Your task to perform on an android device: Search for macbook pro on bestbuy.com, select the first entry, add it to the cart, then select checkout. Image 0: 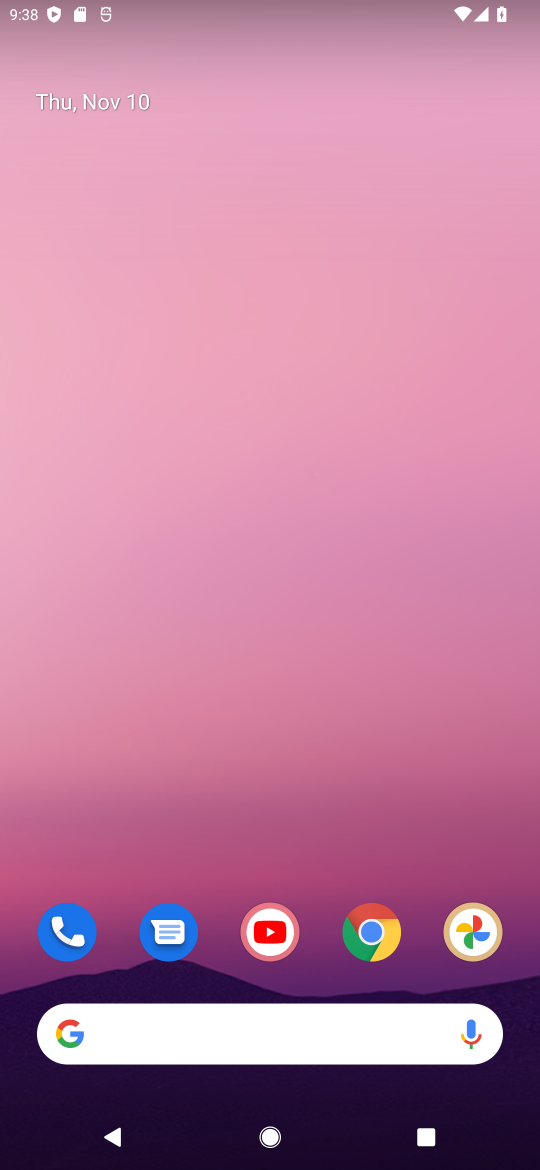
Step 0: click (382, 946)
Your task to perform on an android device: Search for macbook pro on bestbuy.com, select the first entry, add it to the cart, then select checkout. Image 1: 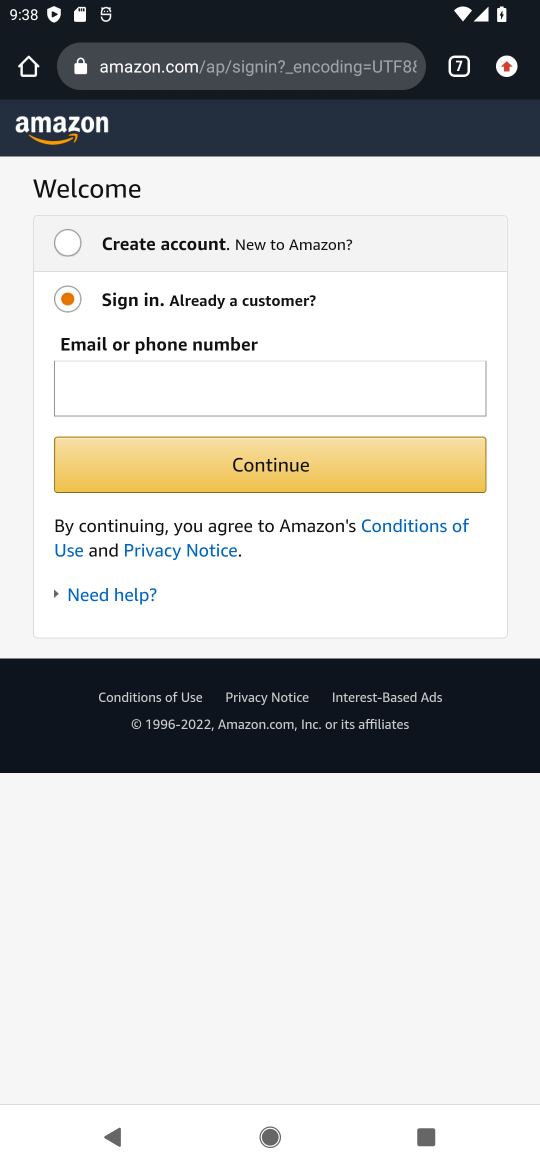
Step 1: click (459, 66)
Your task to perform on an android device: Search for macbook pro on bestbuy.com, select the first entry, add it to the cart, then select checkout. Image 2: 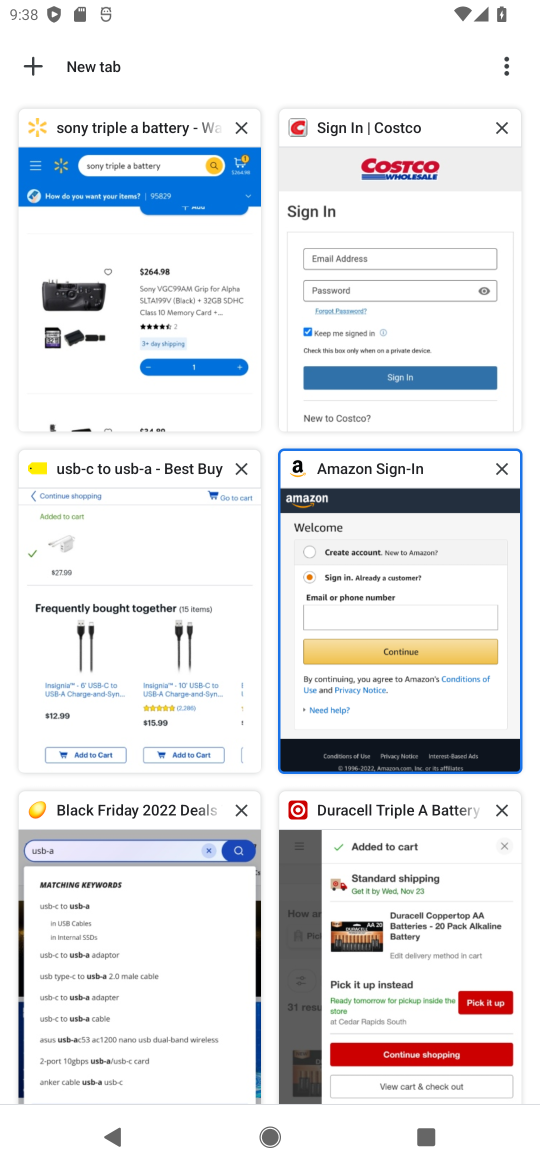
Step 2: click (181, 570)
Your task to perform on an android device: Search for macbook pro on bestbuy.com, select the first entry, add it to the cart, then select checkout. Image 3: 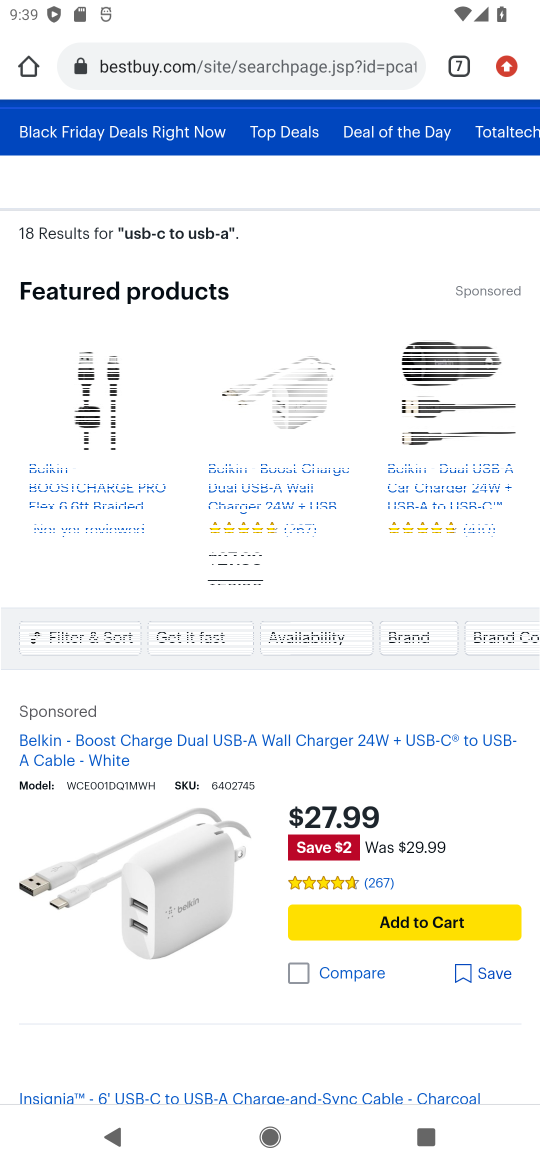
Step 3: drag from (357, 229) to (312, 753)
Your task to perform on an android device: Search for macbook pro on bestbuy.com, select the first entry, add it to the cart, then select checkout. Image 4: 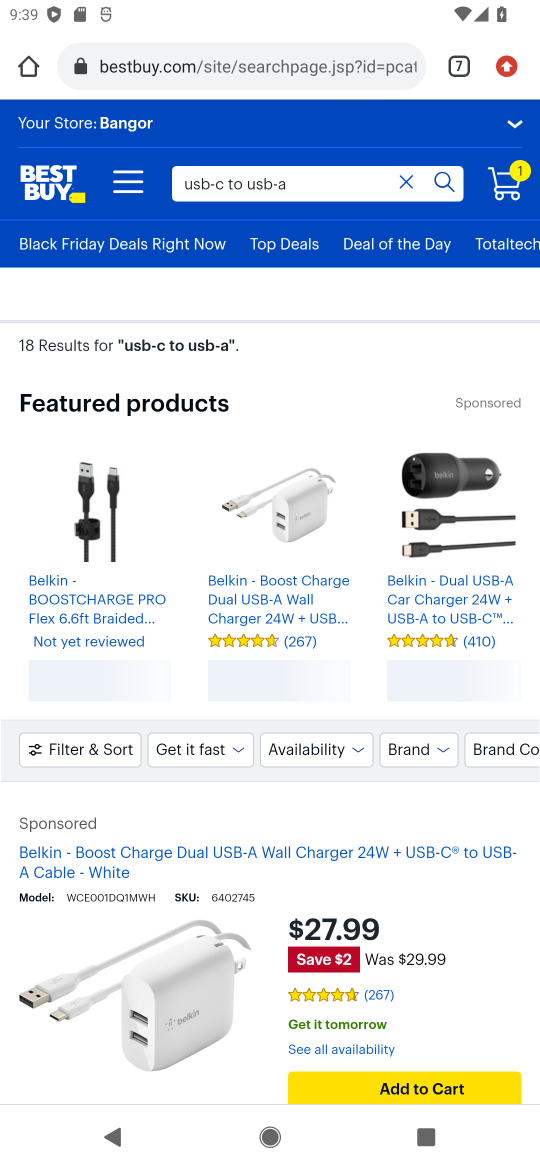
Step 4: click (401, 184)
Your task to perform on an android device: Search for macbook pro on bestbuy.com, select the first entry, add it to the cart, then select checkout. Image 5: 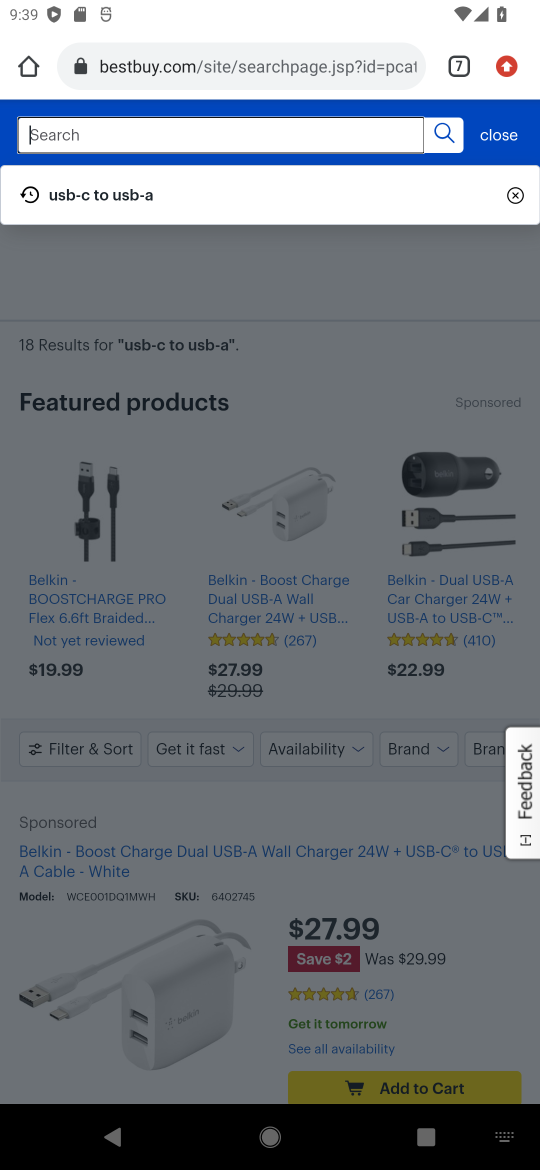
Step 5: type "macbook pro "
Your task to perform on an android device: Search for macbook pro on bestbuy.com, select the first entry, add it to the cart, then select checkout. Image 6: 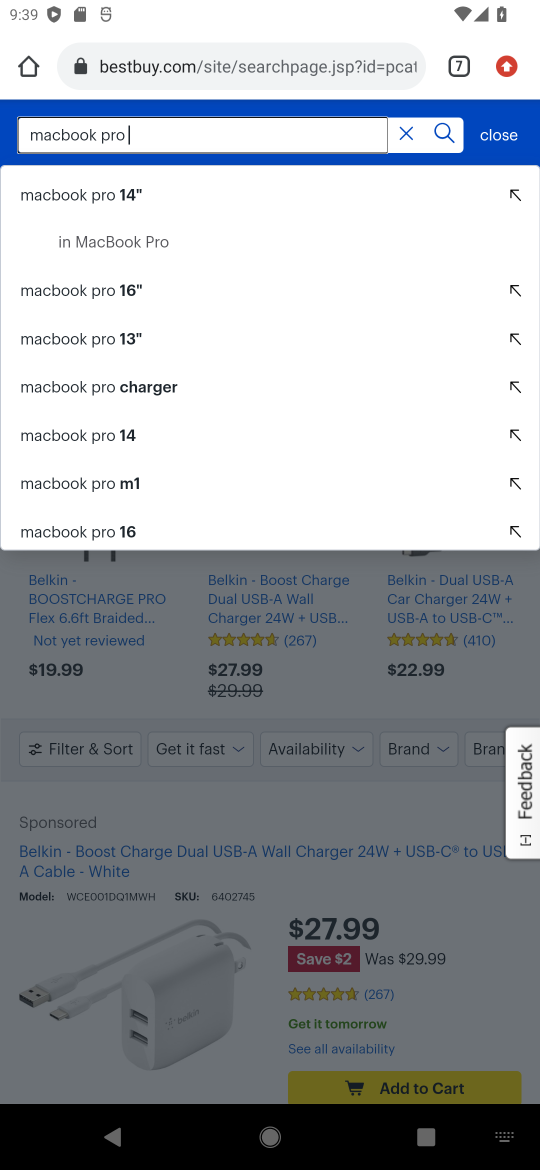
Step 6: click (100, 200)
Your task to perform on an android device: Search for macbook pro on bestbuy.com, select the first entry, add it to the cart, then select checkout. Image 7: 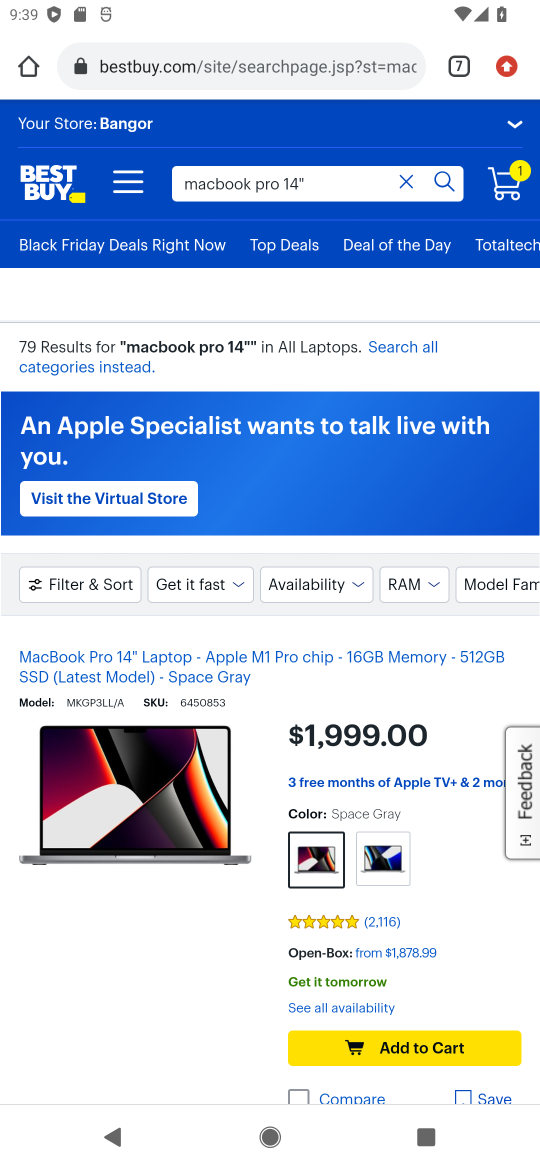
Step 7: click (377, 1043)
Your task to perform on an android device: Search for macbook pro on bestbuy.com, select the first entry, add it to the cart, then select checkout. Image 8: 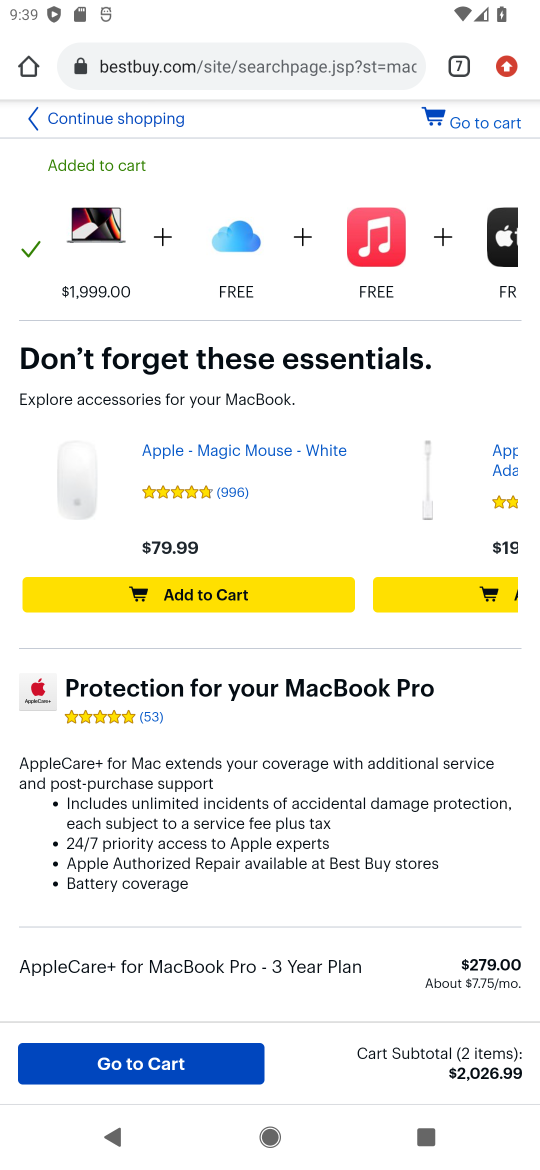
Step 8: click (140, 1056)
Your task to perform on an android device: Search for macbook pro on bestbuy.com, select the first entry, add it to the cart, then select checkout. Image 9: 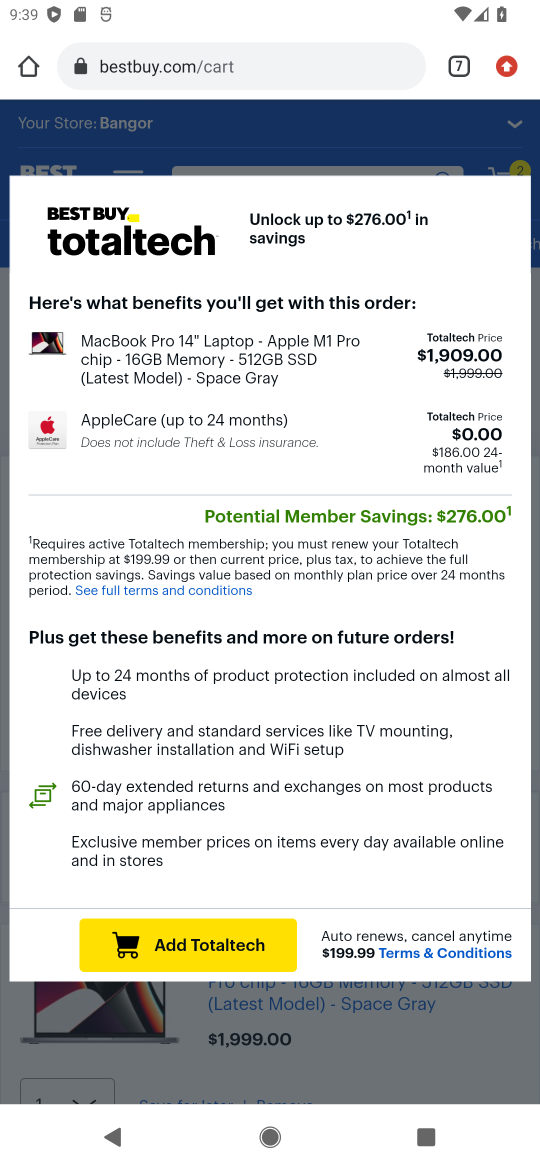
Step 9: click (311, 719)
Your task to perform on an android device: Search for macbook pro on bestbuy.com, select the first entry, add it to the cart, then select checkout. Image 10: 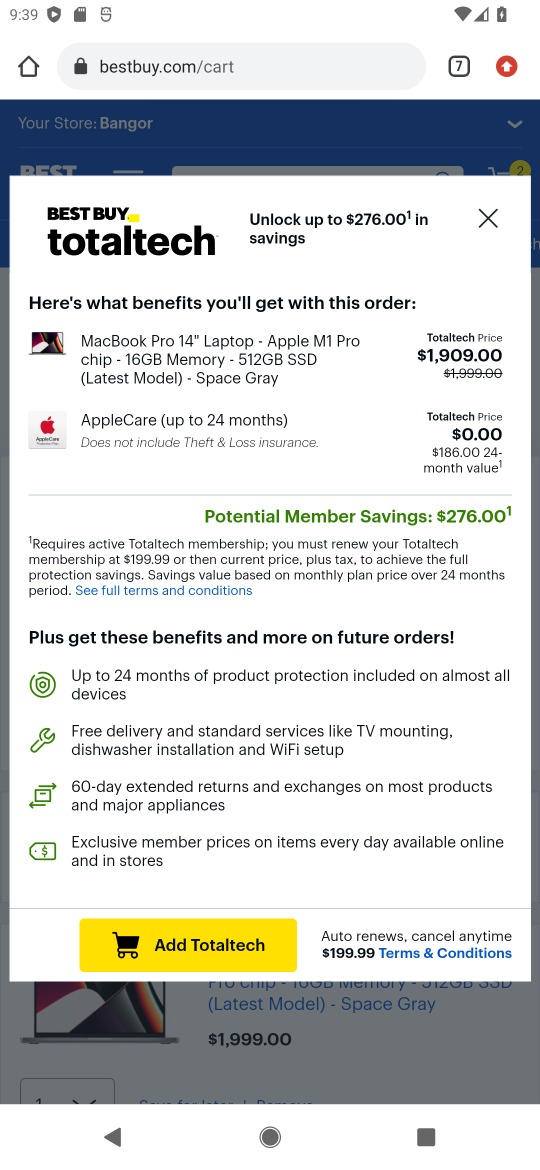
Step 10: click (491, 216)
Your task to perform on an android device: Search for macbook pro on bestbuy.com, select the first entry, add it to the cart, then select checkout. Image 11: 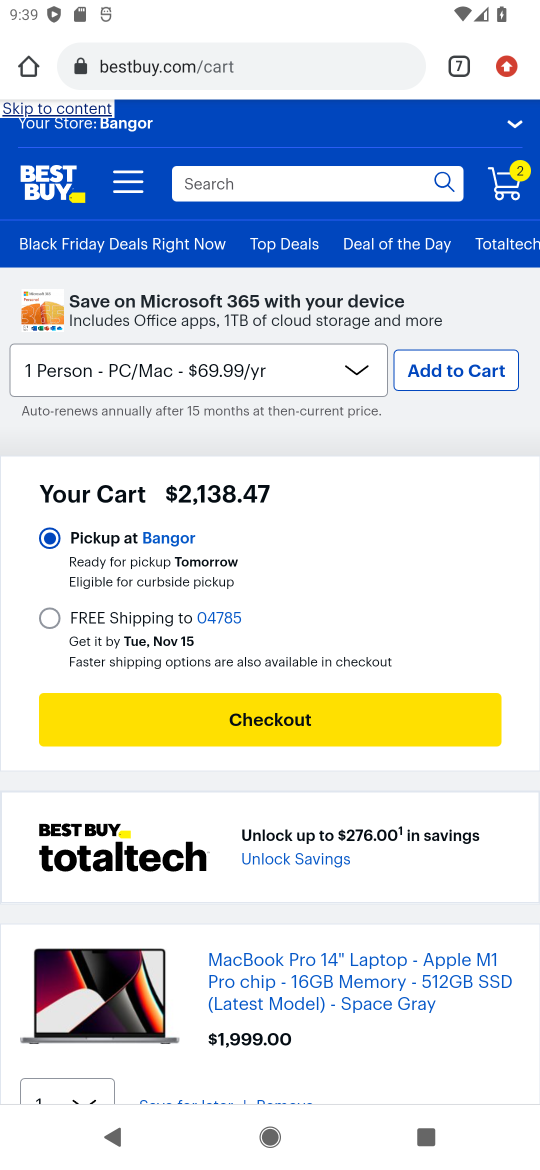
Step 11: click (284, 719)
Your task to perform on an android device: Search for macbook pro on bestbuy.com, select the first entry, add it to the cart, then select checkout. Image 12: 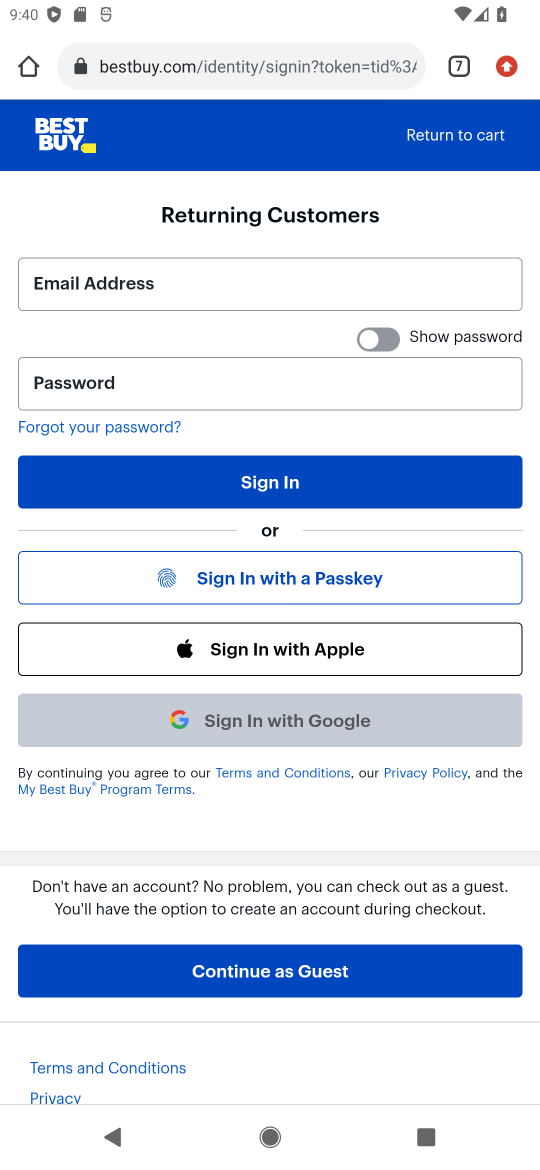
Step 12: task complete